Your task to perform on an android device: Turn on the flashlight Image 0: 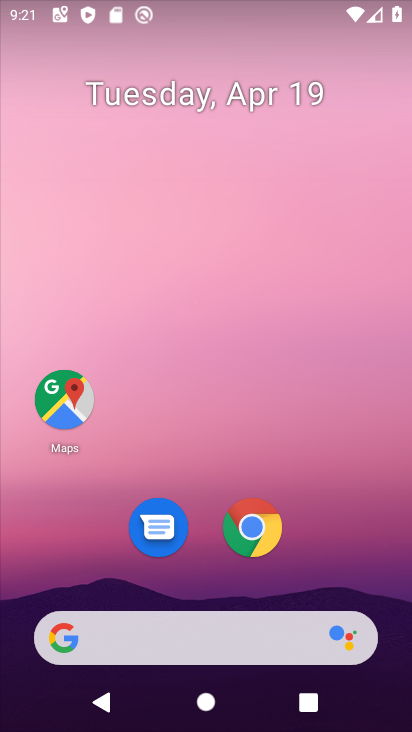
Step 0: drag from (241, 666) to (252, 168)
Your task to perform on an android device: Turn on the flashlight Image 1: 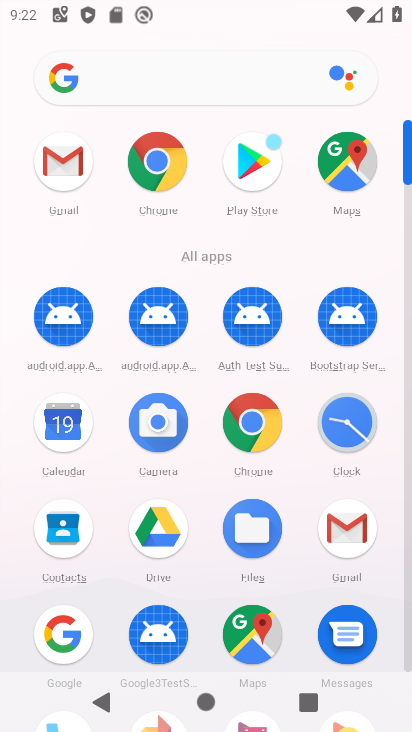
Step 1: drag from (299, 569) to (383, 339)
Your task to perform on an android device: Turn on the flashlight Image 2: 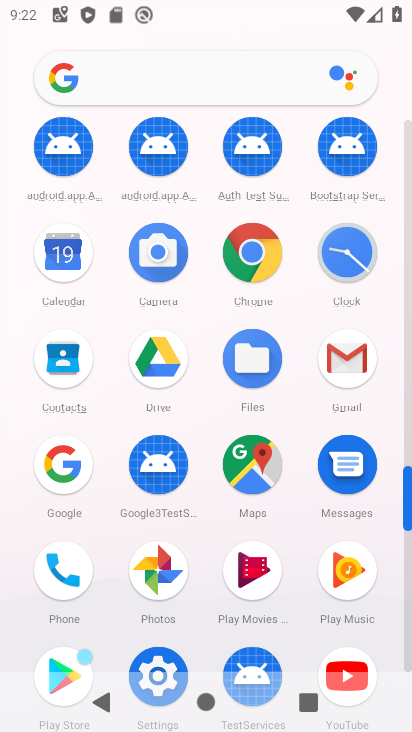
Step 2: click (160, 661)
Your task to perform on an android device: Turn on the flashlight Image 3: 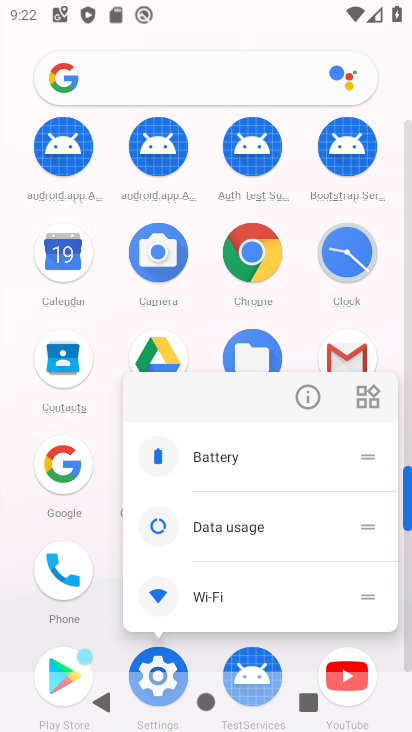
Step 3: click (153, 667)
Your task to perform on an android device: Turn on the flashlight Image 4: 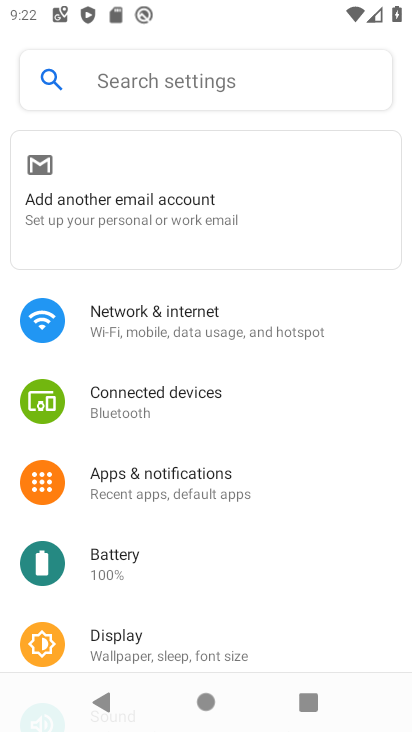
Step 4: click (154, 651)
Your task to perform on an android device: Turn on the flashlight Image 5: 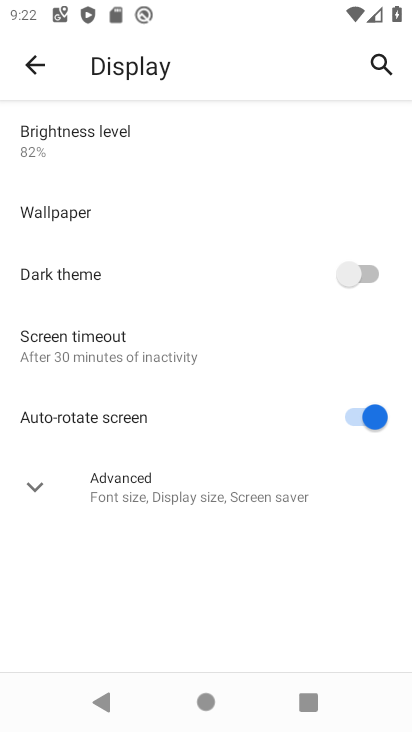
Step 5: click (40, 87)
Your task to perform on an android device: Turn on the flashlight Image 6: 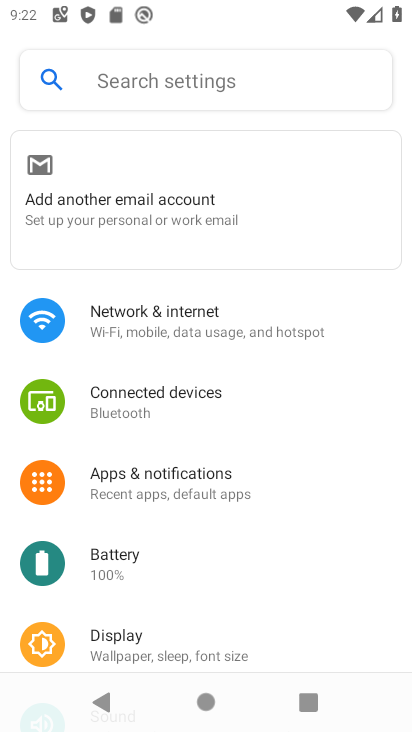
Step 6: click (155, 83)
Your task to perform on an android device: Turn on the flashlight Image 7: 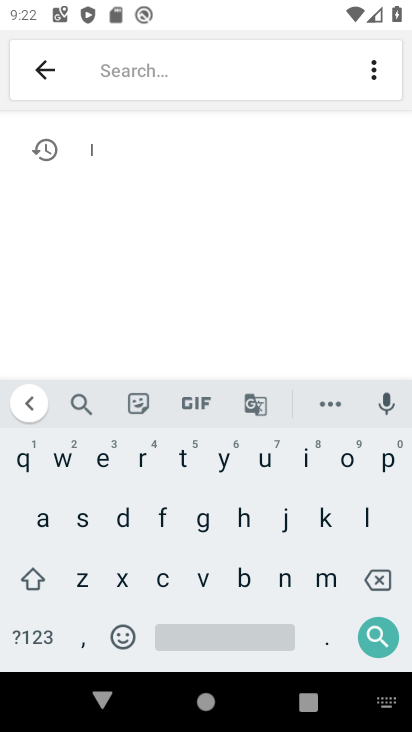
Step 7: click (163, 508)
Your task to perform on an android device: Turn on the flashlight Image 8: 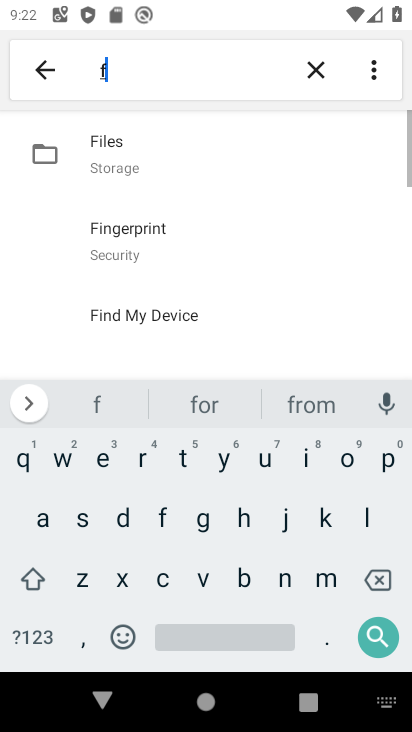
Step 8: click (366, 525)
Your task to perform on an android device: Turn on the flashlight Image 9: 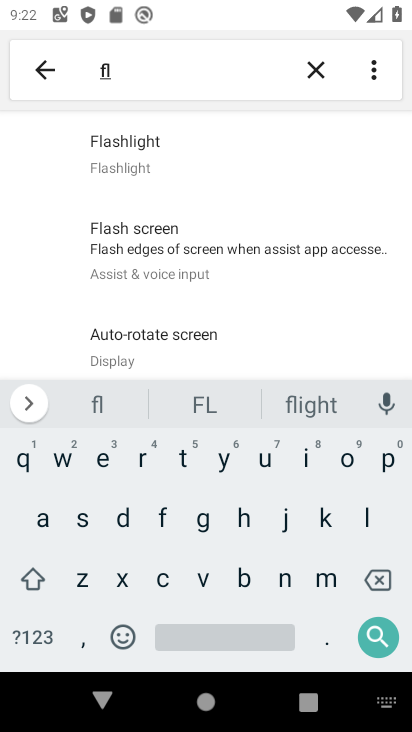
Step 9: task complete